Your task to perform on an android device: Open location settings Image 0: 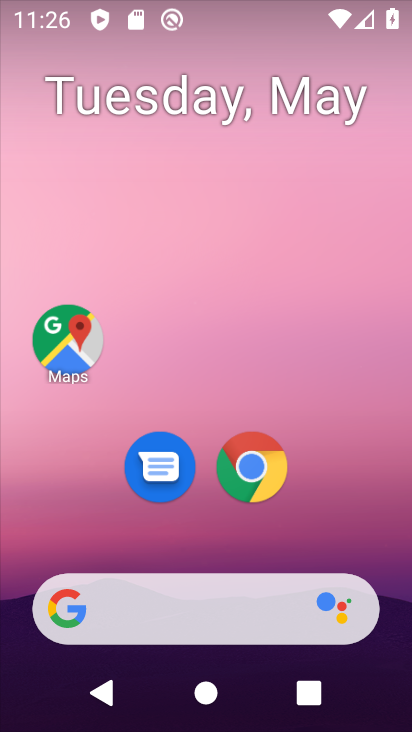
Step 0: drag from (173, 581) to (180, 75)
Your task to perform on an android device: Open location settings Image 1: 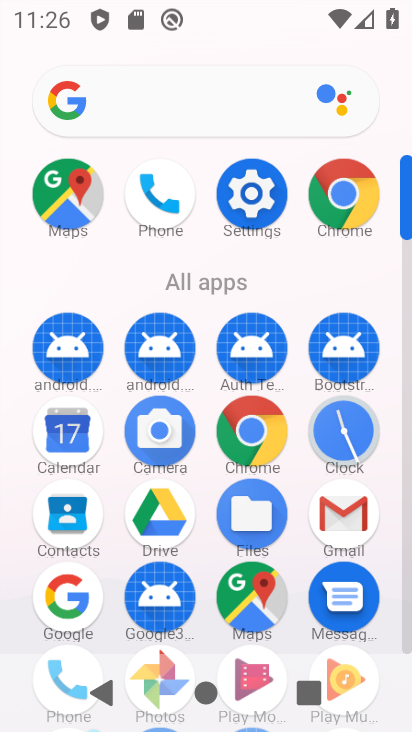
Step 1: click (270, 187)
Your task to perform on an android device: Open location settings Image 2: 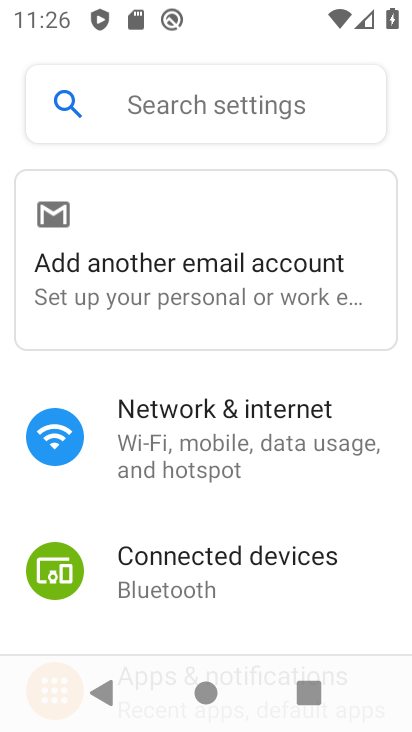
Step 2: drag from (252, 532) to (208, 28)
Your task to perform on an android device: Open location settings Image 3: 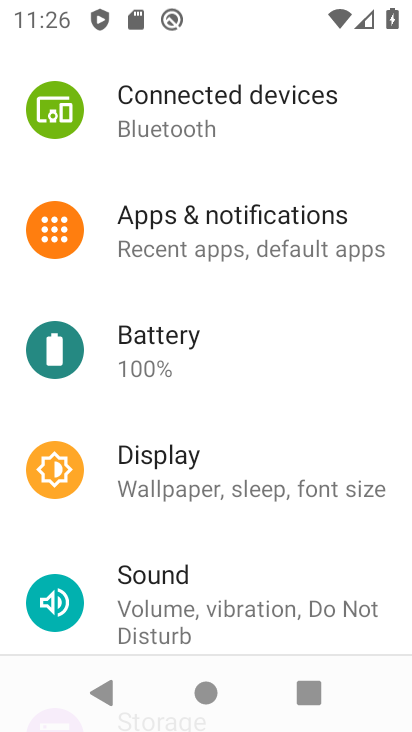
Step 3: drag from (303, 548) to (271, 226)
Your task to perform on an android device: Open location settings Image 4: 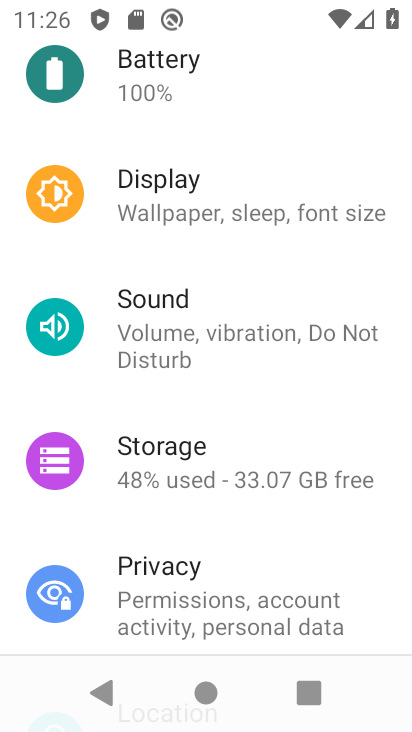
Step 4: drag from (233, 514) to (226, 230)
Your task to perform on an android device: Open location settings Image 5: 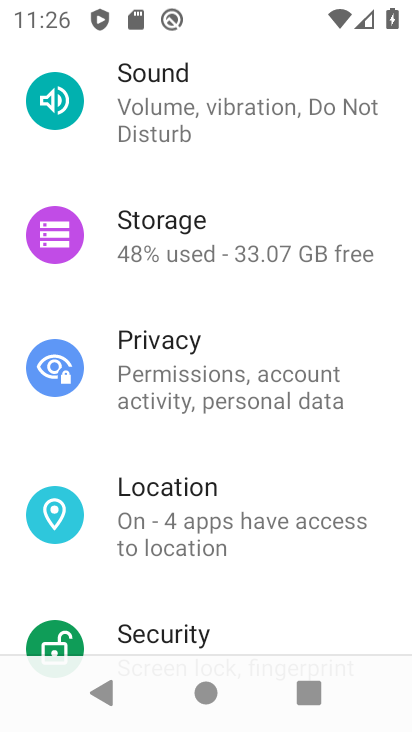
Step 5: click (192, 503)
Your task to perform on an android device: Open location settings Image 6: 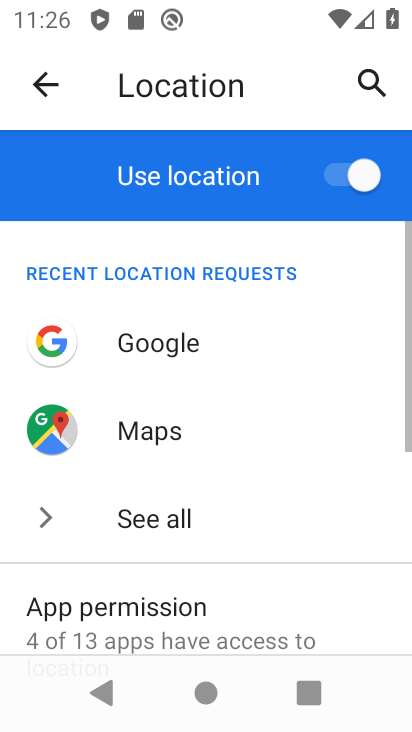
Step 6: task complete